Your task to perform on an android device: What's on my calendar today? Image 0: 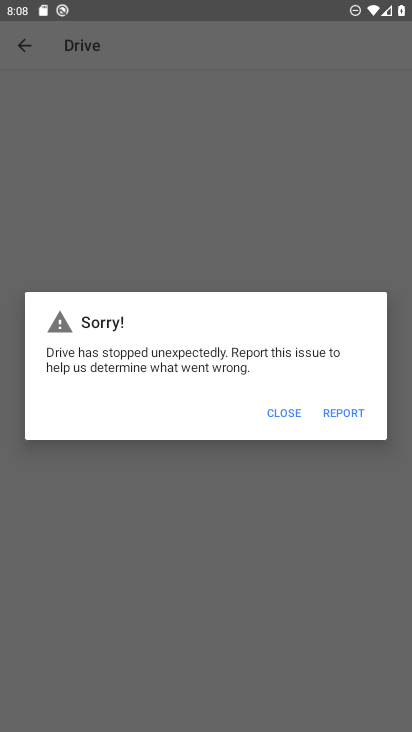
Step 0: press home button
Your task to perform on an android device: What's on my calendar today? Image 1: 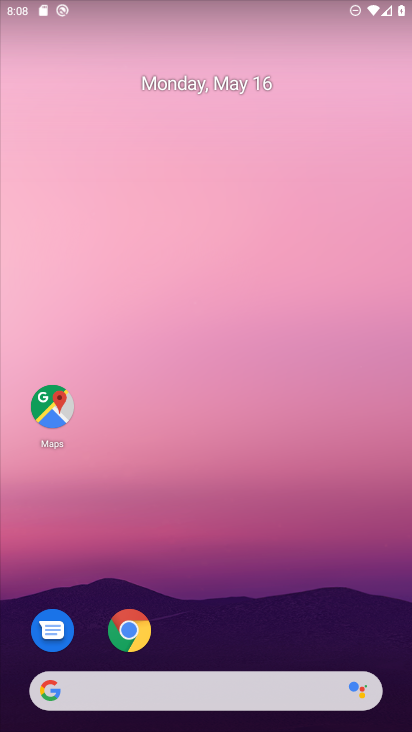
Step 1: press home button
Your task to perform on an android device: What's on my calendar today? Image 2: 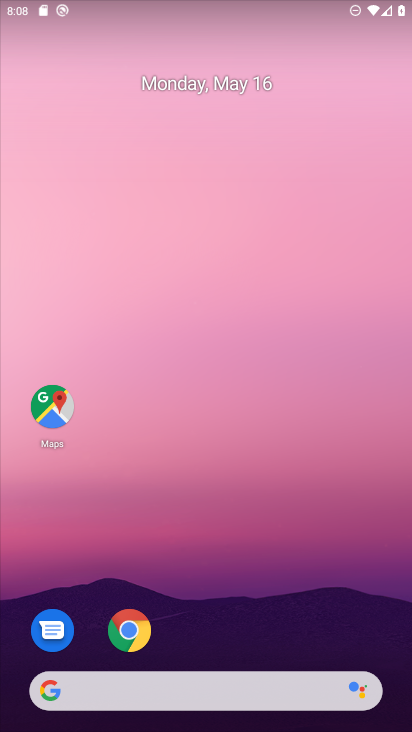
Step 2: drag from (297, 594) to (320, 163)
Your task to perform on an android device: What's on my calendar today? Image 3: 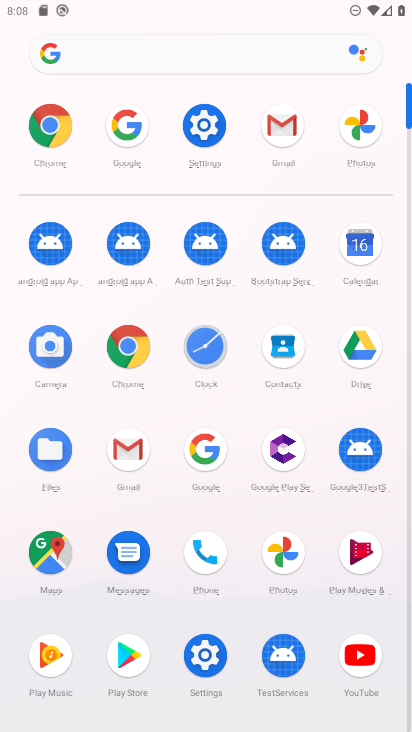
Step 3: click (355, 249)
Your task to perform on an android device: What's on my calendar today? Image 4: 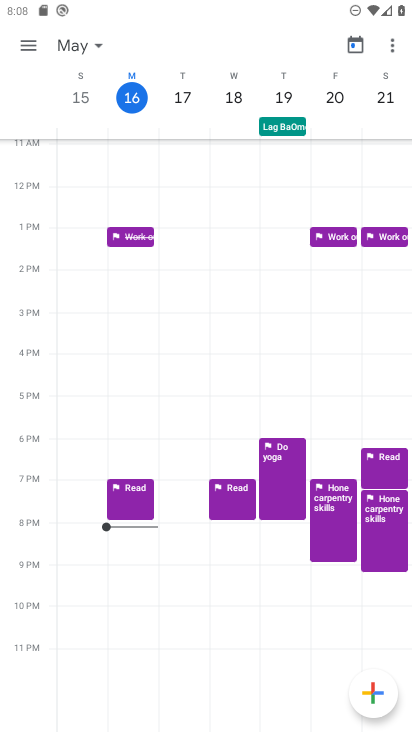
Step 4: click (31, 39)
Your task to perform on an android device: What's on my calendar today? Image 5: 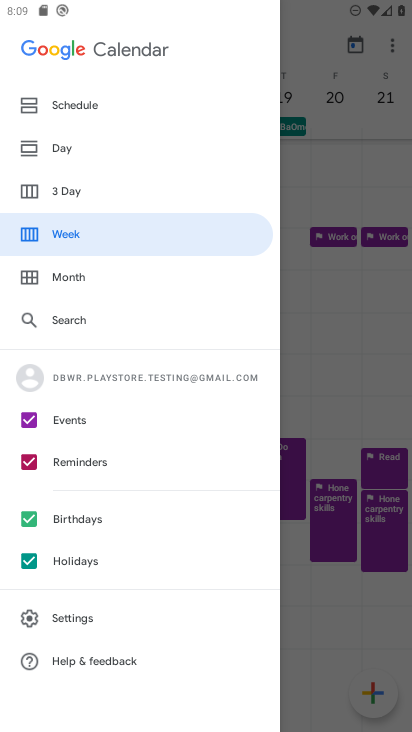
Step 5: click (122, 233)
Your task to perform on an android device: What's on my calendar today? Image 6: 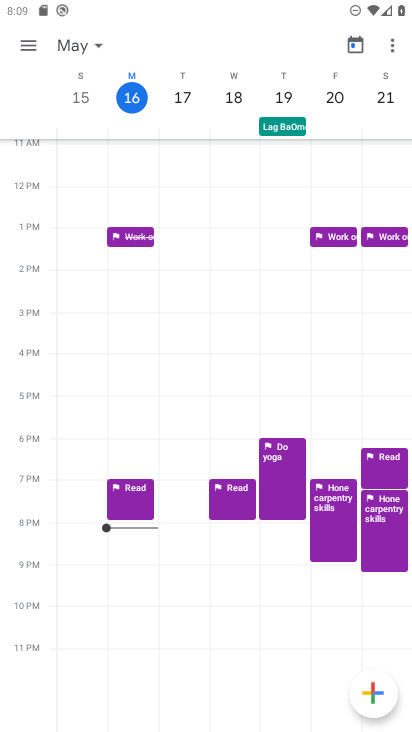
Step 6: click (10, 30)
Your task to perform on an android device: What's on my calendar today? Image 7: 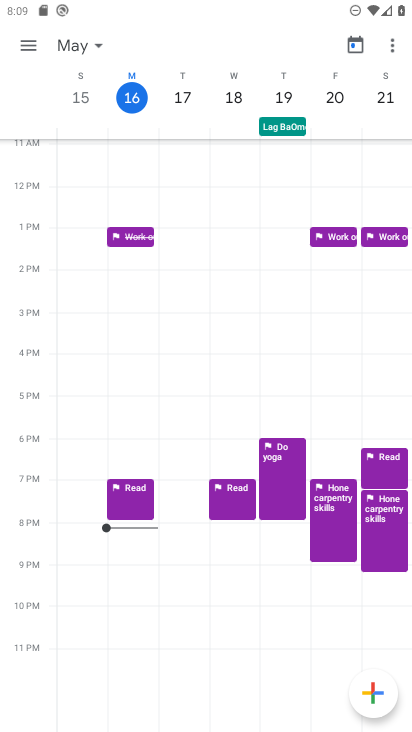
Step 7: click (37, 43)
Your task to perform on an android device: What's on my calendar today? Image 8: 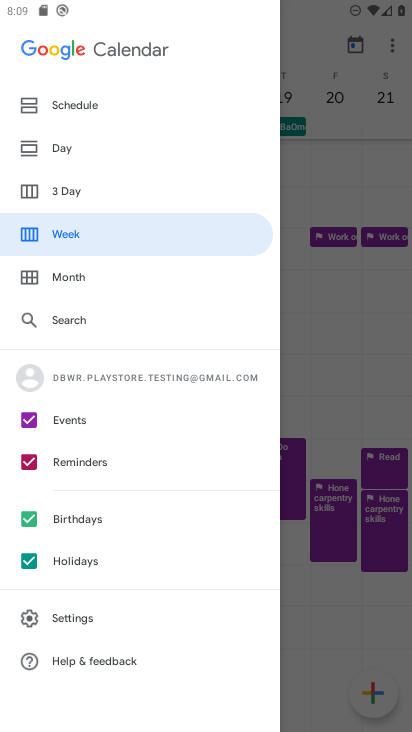
Step 8: click (68, 158)
Your task to perform on an android device: What's on my calendar today? Image 9: 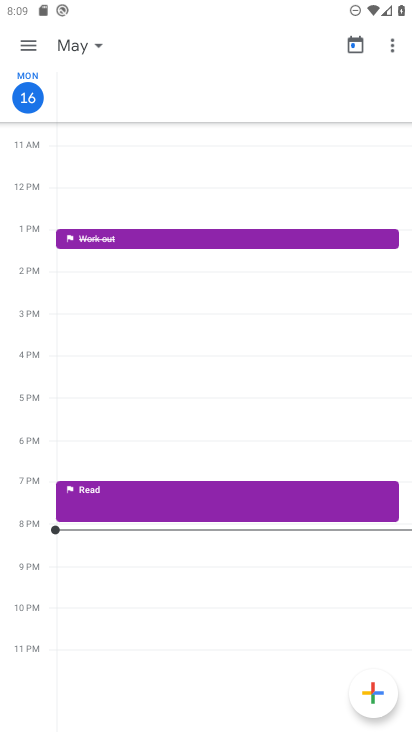
Step 9: drag from (96, 367) to (83, 78)
Your task to perform on an android device: What's on my calendar today? Image 10: 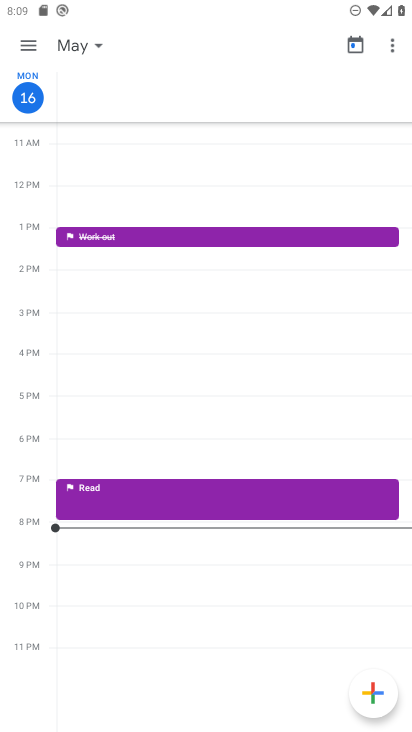
Step 10: click (26, 96)
Your task to perform on an android device: What's on my calendar today? Image 11: 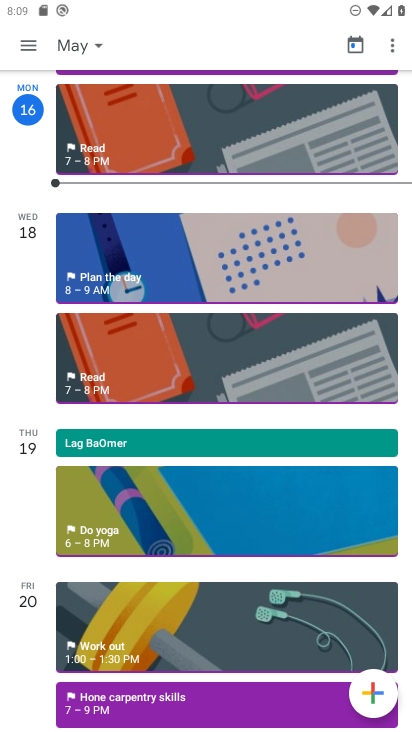
Step 11: drag from (183, 144) to (231, 436)
Your task to perform on an android device: What's on my calendar today? Image 12: 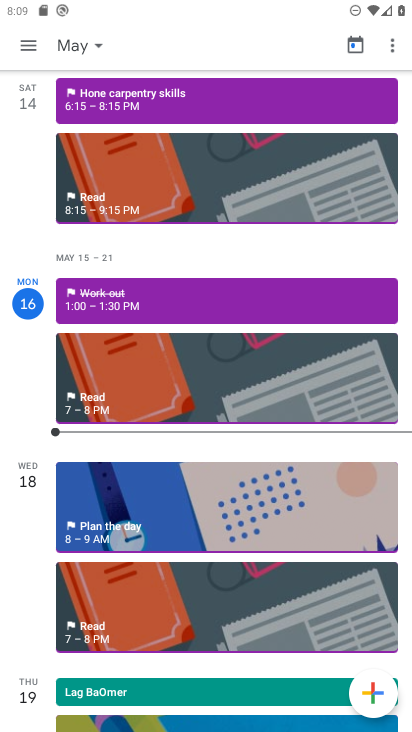
Step 12: drag from (165, 453) to (174, 200)
Your task to perform on an android device: What's on my calendar today? Image 13: 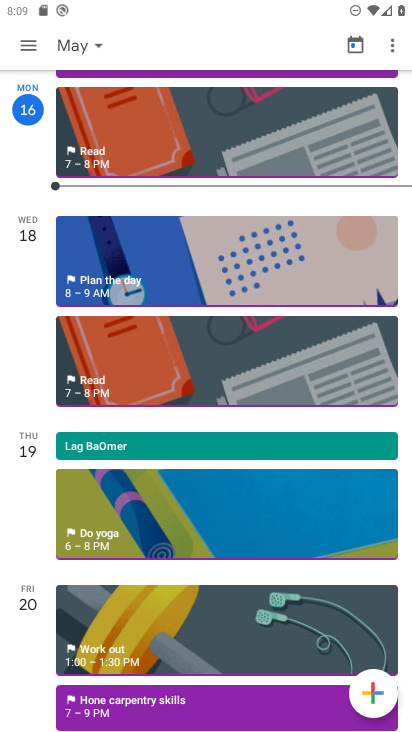
Step 13: click (73, 40)
Your task to perform on an android device: What's on my calendar today? Image 14: 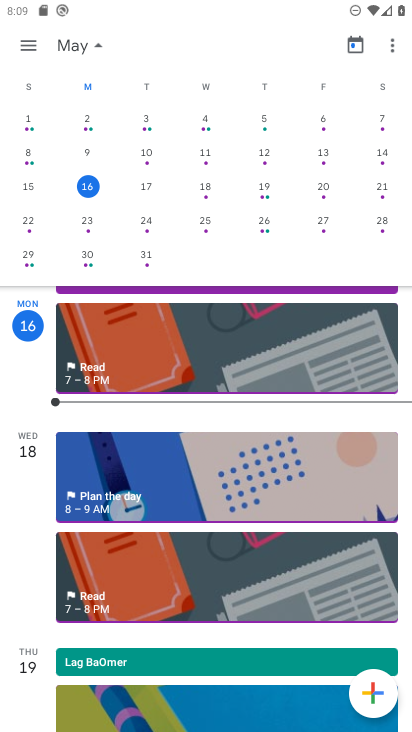
Step 14: click (150, 187)
Your task to perform on an android device: What's on my calendar today? Image 15: 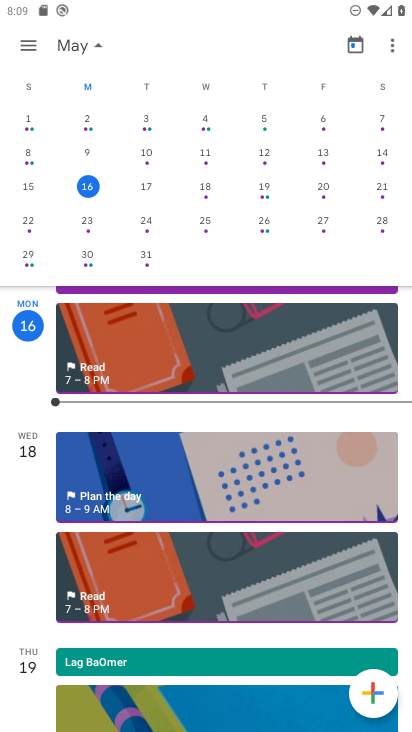
Step 15: click (149, 187)
Your task to perform on an android device: What's on my calendar today? Image 16: 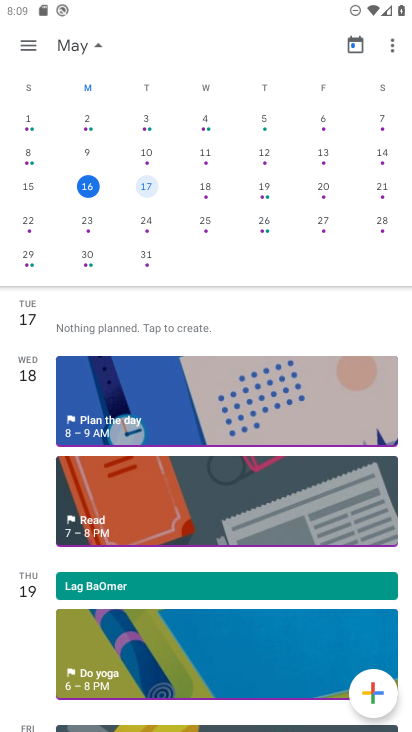
Step 16: click (149, 187)
Your task to perform on an android device: What's on my calendar today? Image 17: 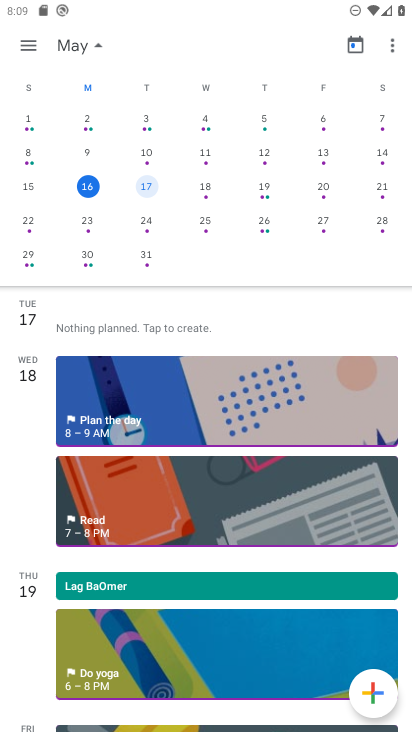
Step 17: click (141, 325)
Your task to perform on an android device: What's on my calendar today? Image 18: 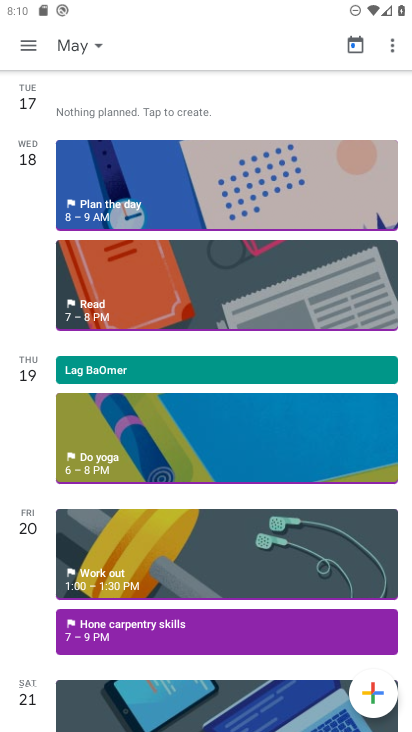
Step 18: click (75, 103)
Your task to perform on an android device: What's on my calendar today? Image 19: 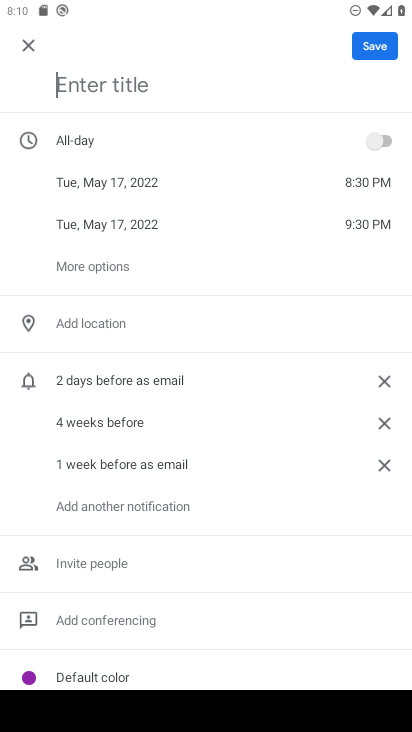
Step 19: click (39, 42)
Your task to perform on an android device: What's on my calendar today? Image 20: 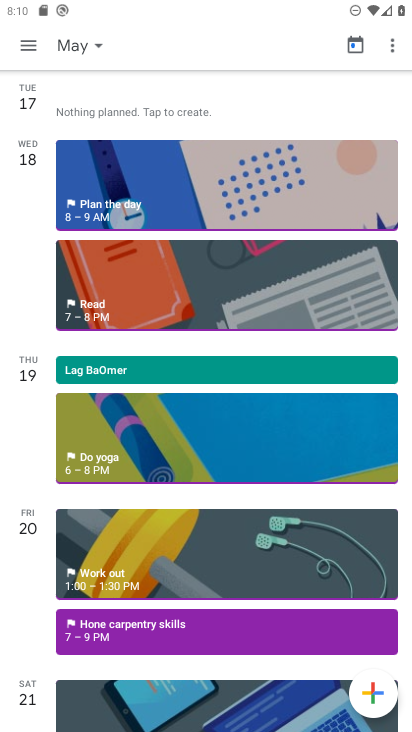
Step 20: task complete